Your task to perform on an android device: Is it going to rain this weekend? Image 0: 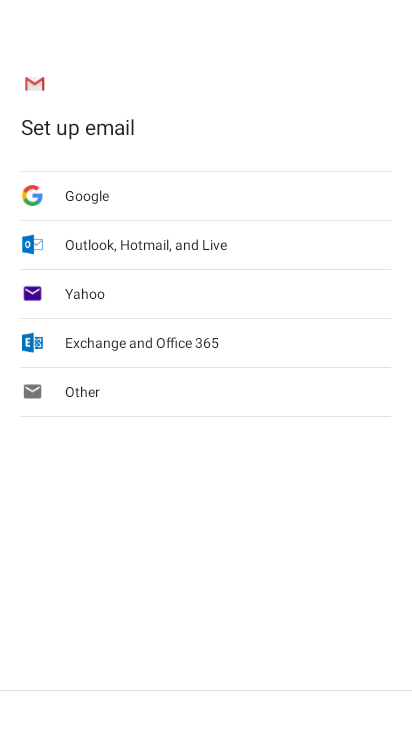
Step 0: press home button
Your task to perform on an android device: Is it going to rain this weekend? Image 1: 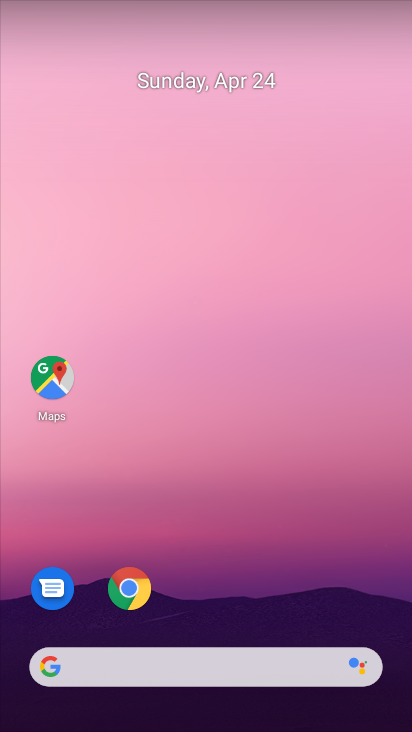
Step 1: drag from (264, 599) to (276, 162)
Your task to perform on an android device: Is it going to rain this weekend? Image 2: 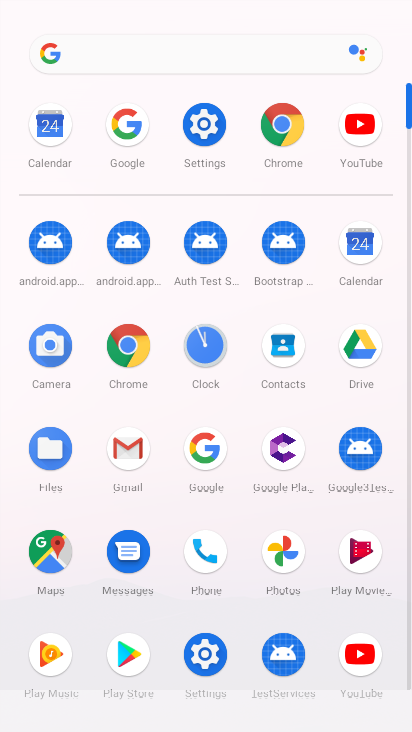
Step 2: click (209, 454)
Your task to perform on an android device: Is it going to rain this weekend? Image 3: 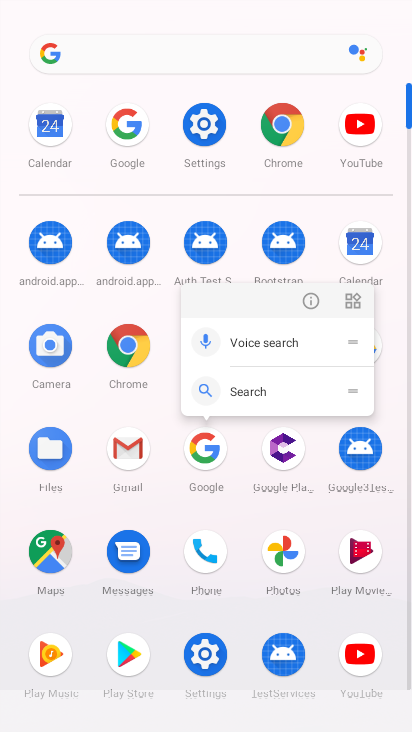
Step 3: click (209, 454)
Your task to perform on an android device: Is it going to rain this weekend? Image 4: 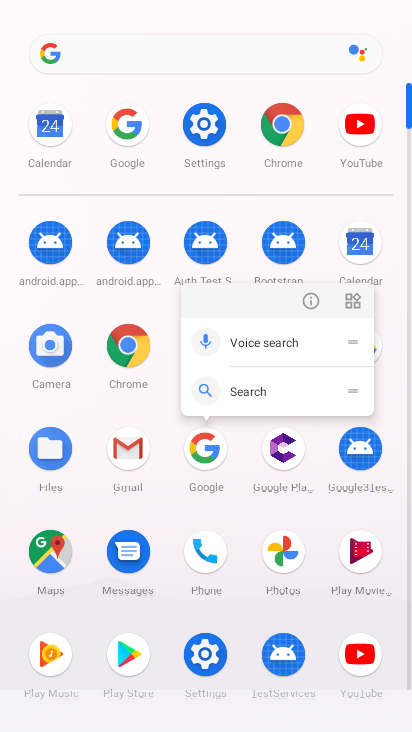
Step 4: click (198, 447)
Your task to perform on an android device: Is it going to rain this weekend? Image 5: 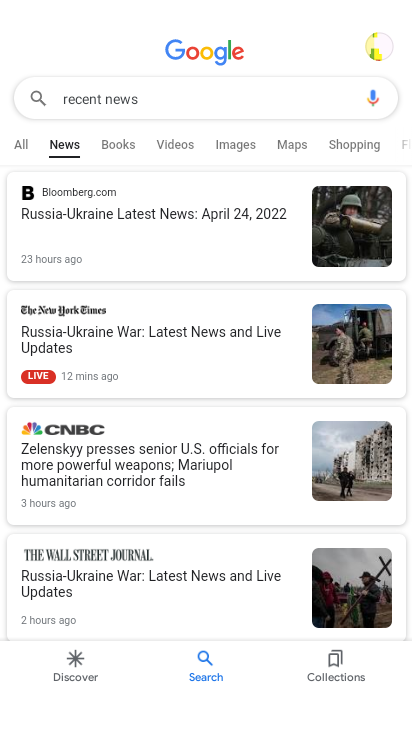
Step 5: click (149, 96)
Your task to perform on an android device: Is it going to rain this weekend? Image 6: 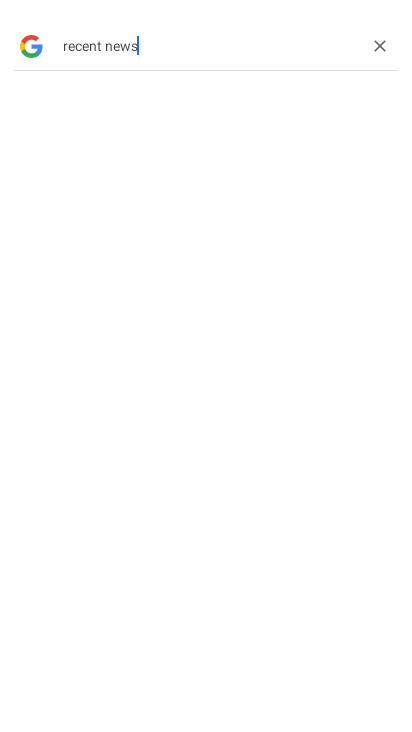
Step 6: click (149, 96)
Your task to perform on an android device: Is it going to rain this weekend? Image 7: 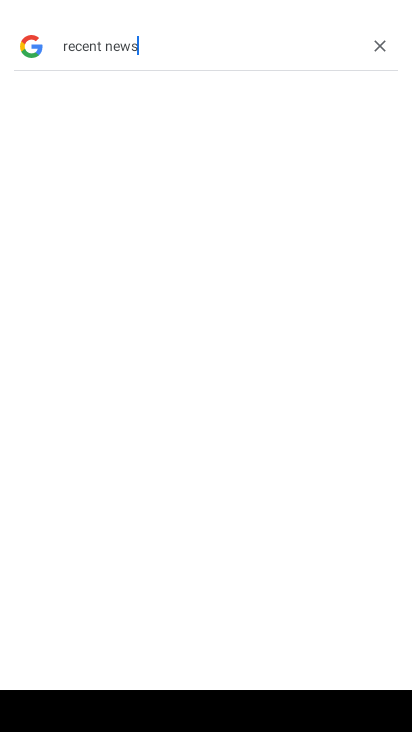
Step 7: click (384, 52)
Your task to perform on an android device: Is it going to rain this weekend? Image 8: 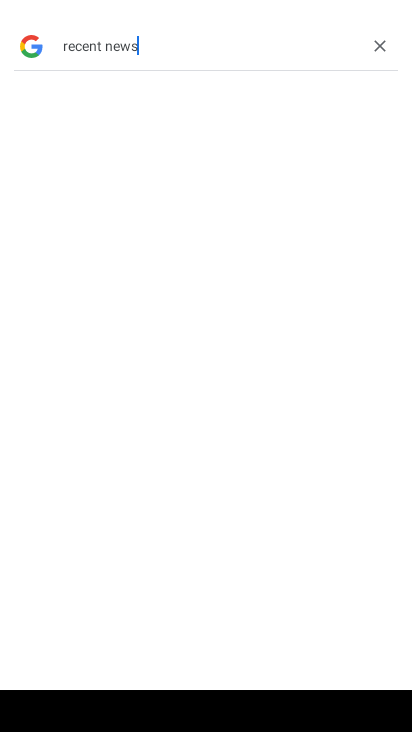
Step 8: click (378, 46)
Your task to perform on an android device: Is it going to rain this weekend? Image 9: 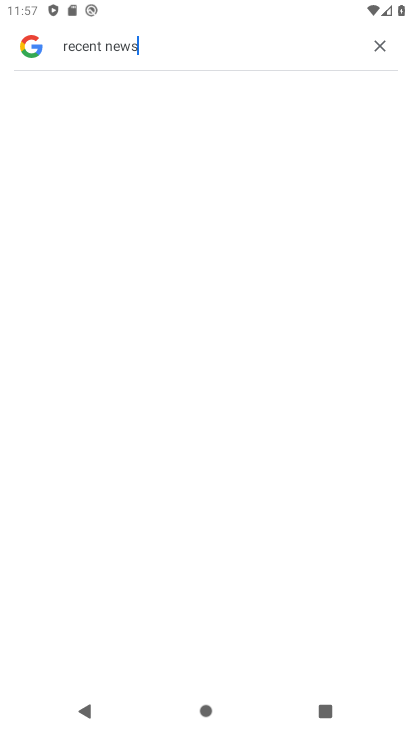
Step 9: click (384, 48)
Your task to perform on an android device: Is it going to rain this weekend? Image 10: 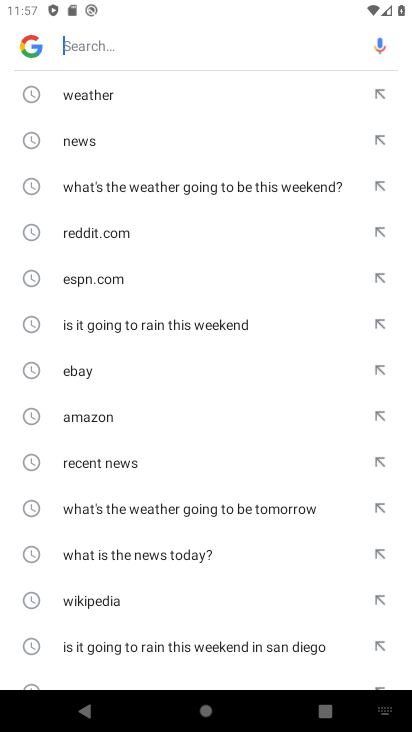
Step 10: click (105, 96)
Your task to perform on an android device: Is it going to rain this weekend? Image 11: 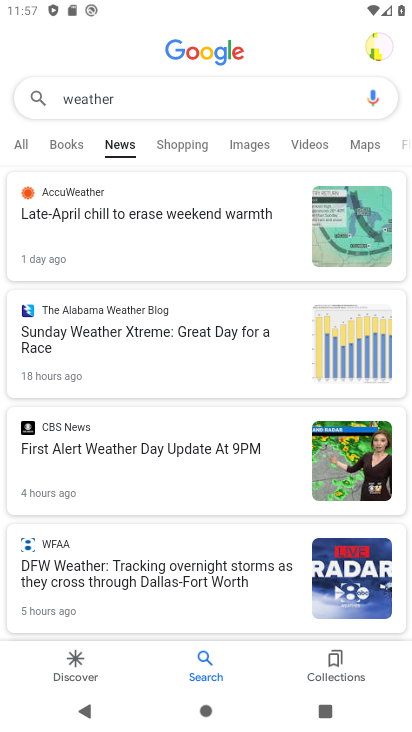
Step 11: click (23, 147)
Your task to perform on an android device: Is it going to rain this weekend? Image 12: 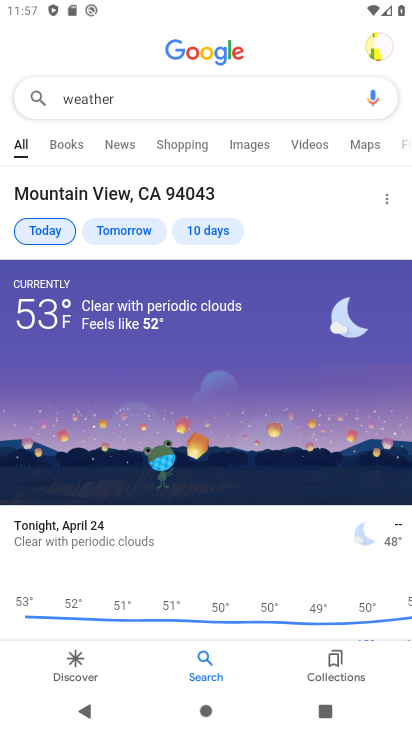
Step 12: task complete